Your task to perform on an android device: Open calendar and show me the third week of next month Image 0: 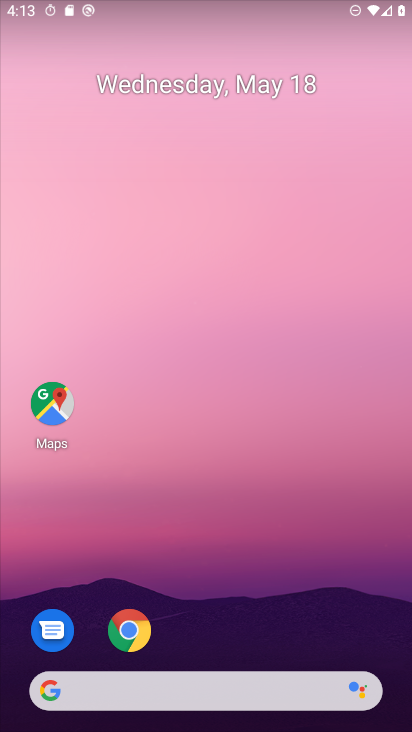
Step 0: drag from (227, 643) to (210, 48)
Your task to perform on an android device: Open calendar and show me the third week of next month Image 1: 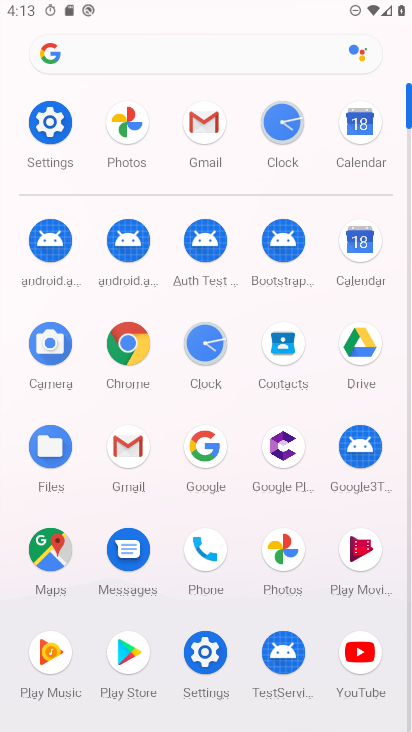
Step 1: click (360, 236)
Your task to perform on an android device: Open calendar and show me the third week of next month Image 2: 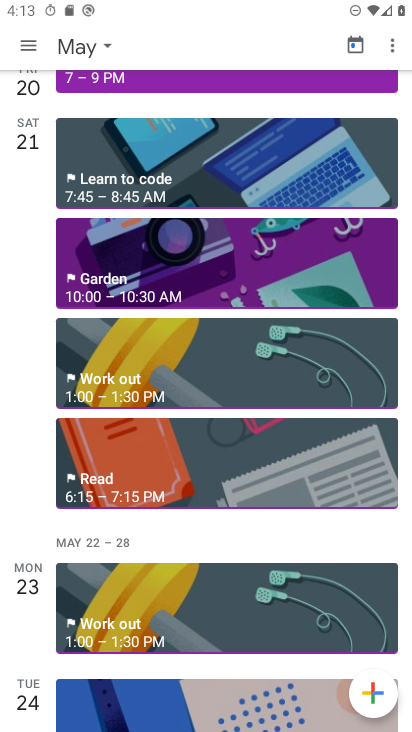
Step 2: click (104, 44)
Your task to perform on an android device: Open calendar and show me the third week of next month Image 3: 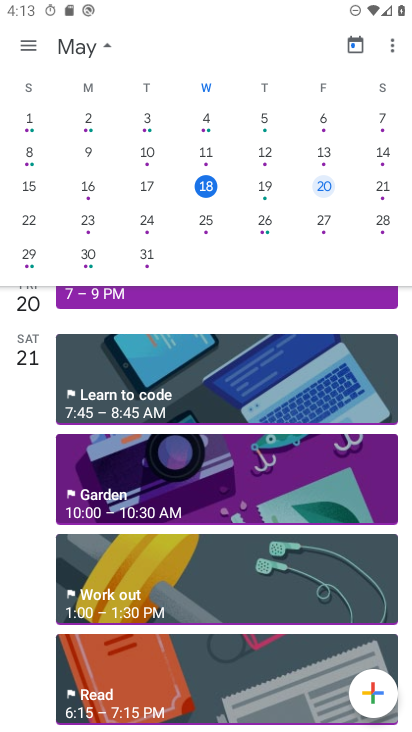
Step 3: drag from (362, 173) to (101, 174)
Your task to perform on an android device: Open calendar and show me the third week of next month Image 4: 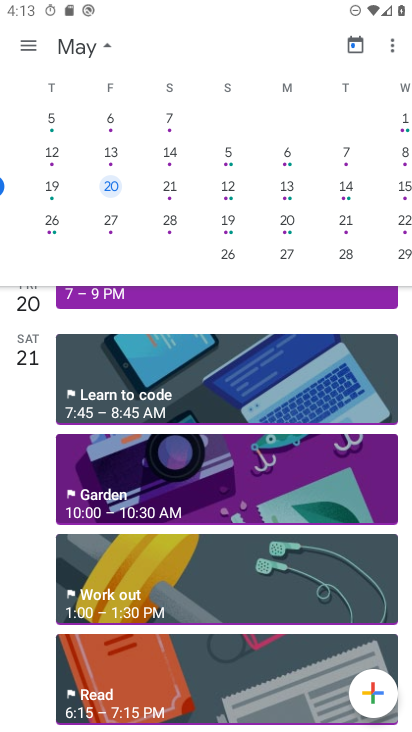
Step 4: click (0, 174)
Your task to perform on an android device: Open calendar and show me the third week of next month Image 5: 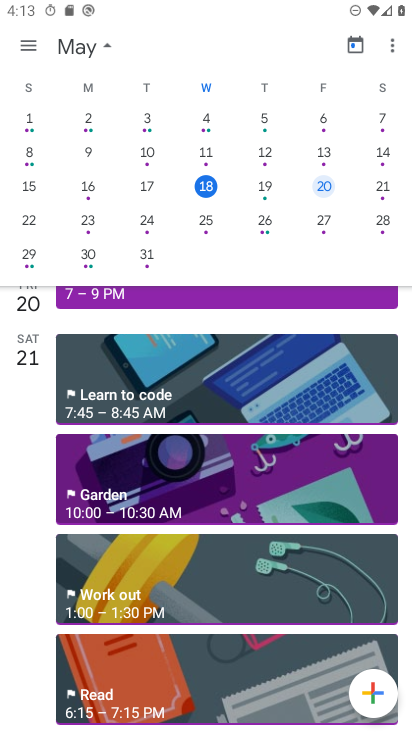
Step 5: drag from (385, 178) to (56, 178)
Your task to perform on an android device: Open calendar and show me the third week of next month Image 6: 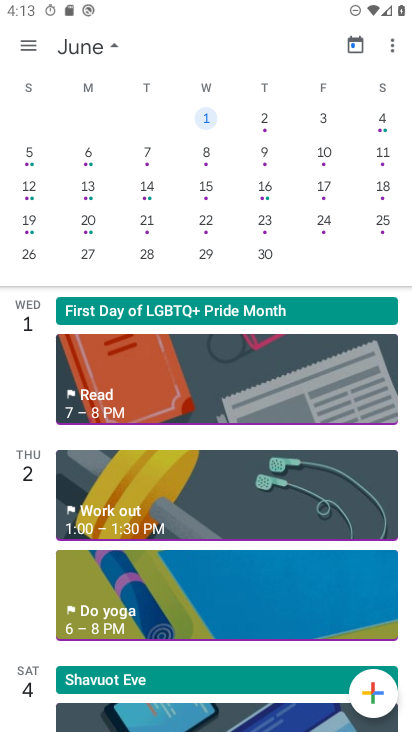
Step 6: click (18, 189)
Your task to perform on an android device: Open calendar and show me the third week of next month Image 7: 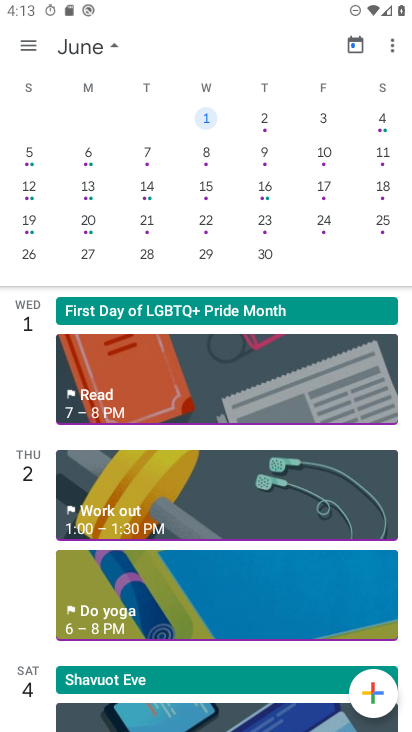
Step 7: click (25, 186)
Your task to perform on an android device: Open calendar and show me the third week of next month Image 8: 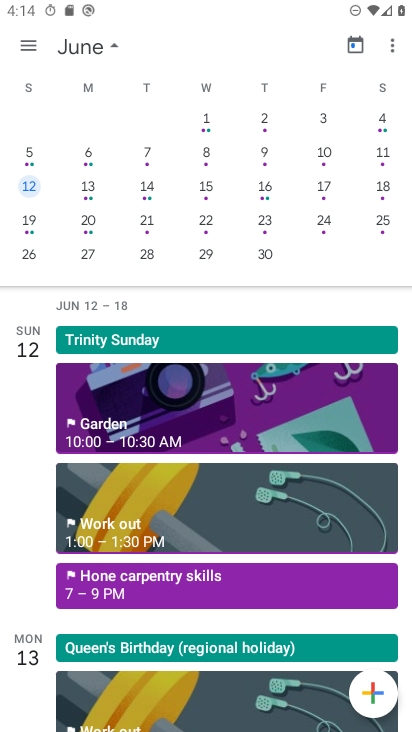
Step 8: click (115, 43)
Your task to perform on an android device: Open calendar and show me the third week of next month Image 9: 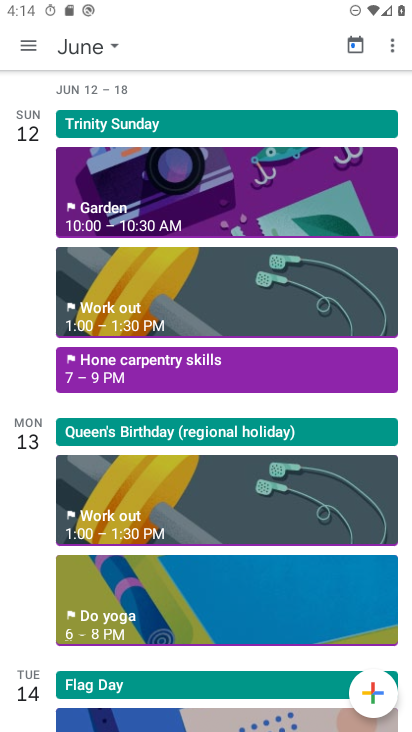
Step 9: drag from (37, 487) to (17, 259)
Your task to perform on an android device: Open calendar and show me the third week of next month Image 10: 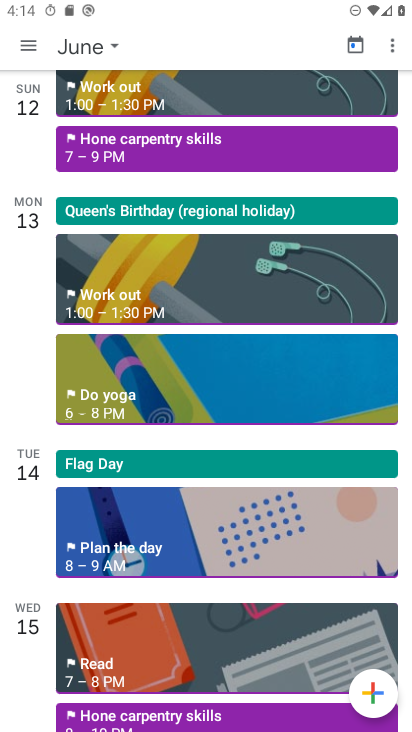
Step 10: click (26, 117)
Your task to perform on an android device: Open calendar and show me the third week of next month Image 11: 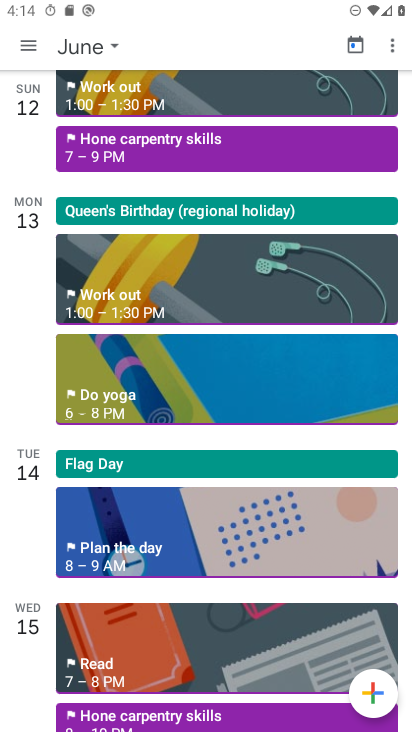
Step 11: drag from (34, 536) to (55, 172)
Your task to perform on an android device: Open calendar and show me the third week of next month Image 12: 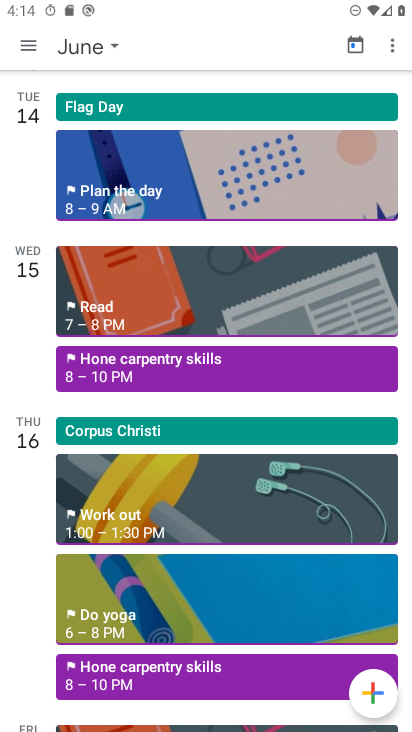
Step 12: click (60, 122)
Your task to perform on an android device: Open calendar and show me the third week of next month Image 13: 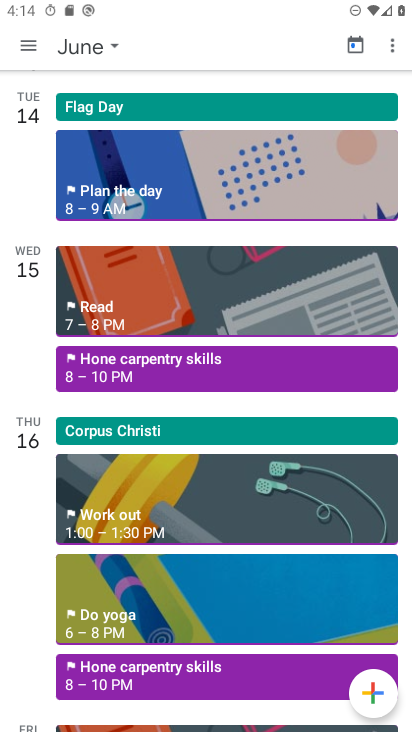
Step 13: drag from (41, 470) to (68, 220)
Your task to perform on an android device: Open calendar and show me the third week of next month Image 14: 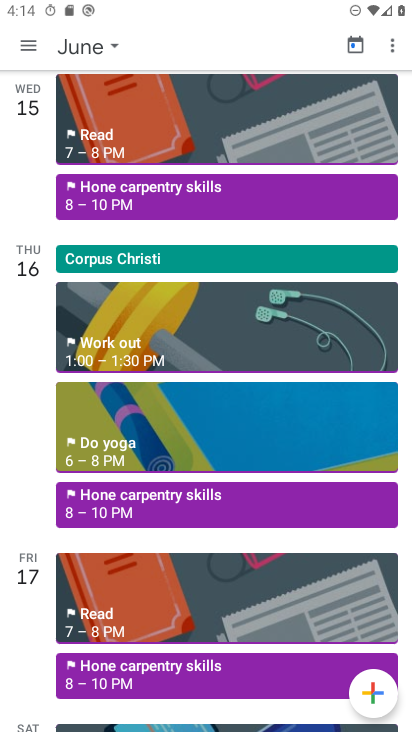
Step 14: click (71, 188)
Your task to perform on an android device: Open calendar and show me the third week of next month Image 15: 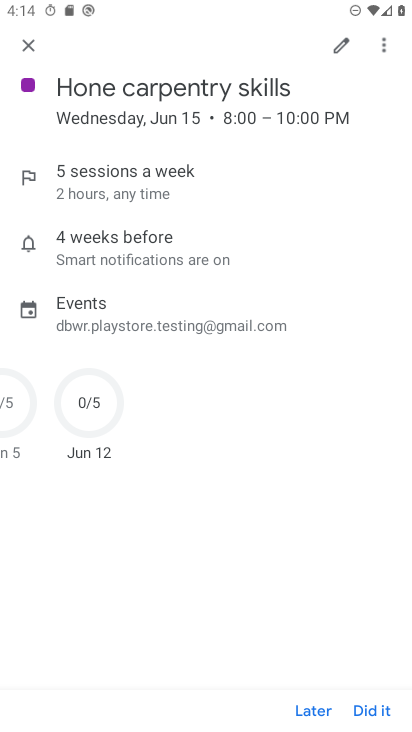
Step 15: click (32, 47)
Your task to perform on an android device: Open calendar and show me the third week of next month Image 16: 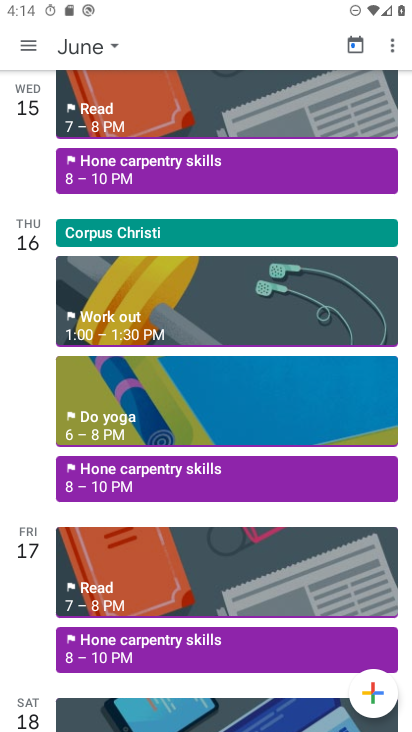
Step 16: task complete